Your task to perform on an android device: Go to Yahoo.com Image 0: 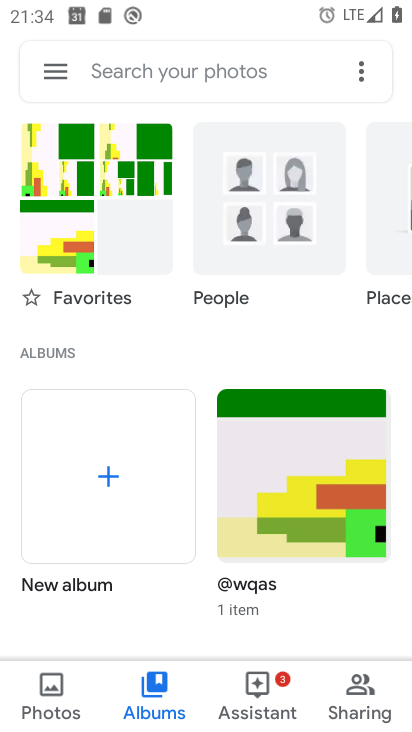
Step 0: press home button
Your task to perform on an android device: Go to Yahoo.com Image 1: 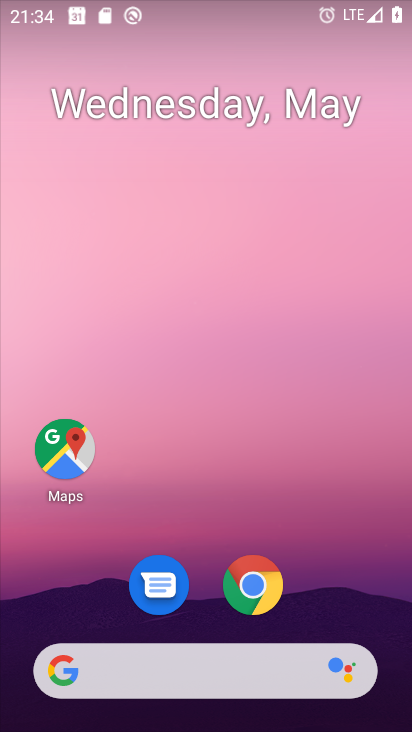
Step 1: click (274, 672)
Your task to perform on an android device: Go to Yahoo.com Image 2: 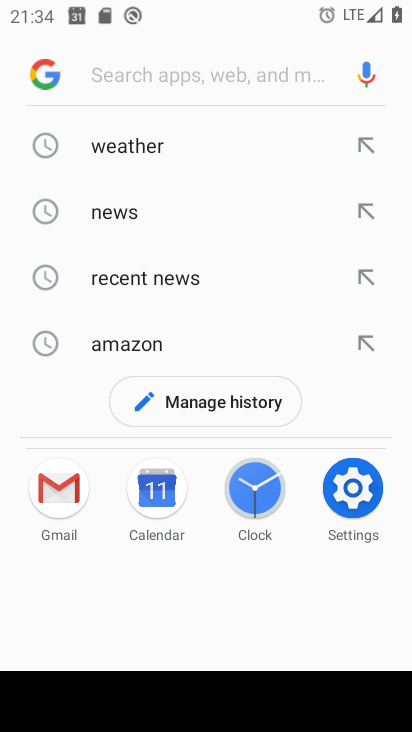
Step 2: type "yahoo.com"
Your task to perform on an android device: Go to Yahoo.com Image 3: 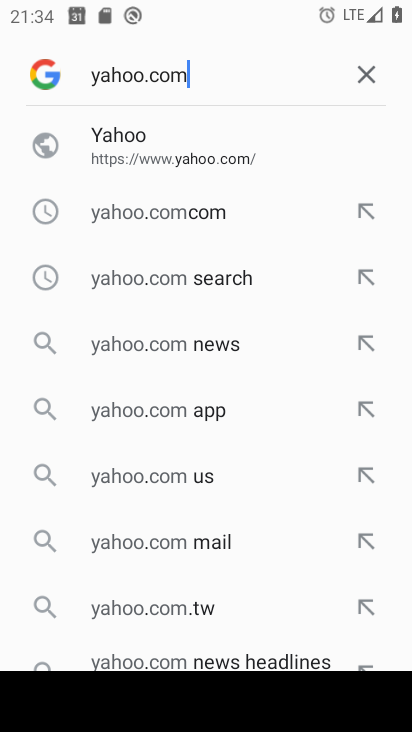
Step 3: click (101, 152)
Your task to perform on an android device: Go to Yahoo.com Image 4: 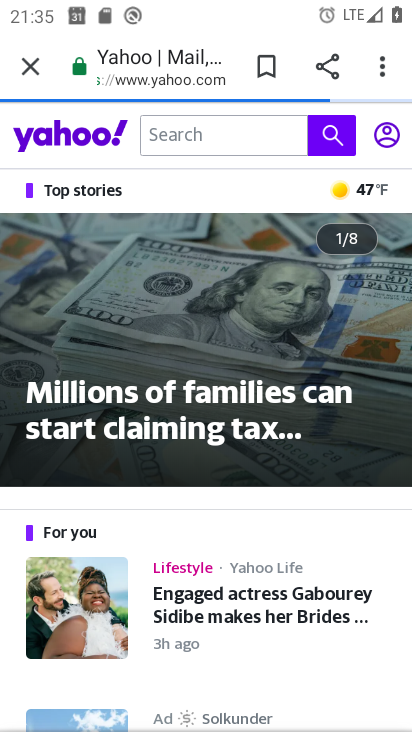
Step 4: task complete